Your task to perform on an android device: open device folders in google photos Image 0: 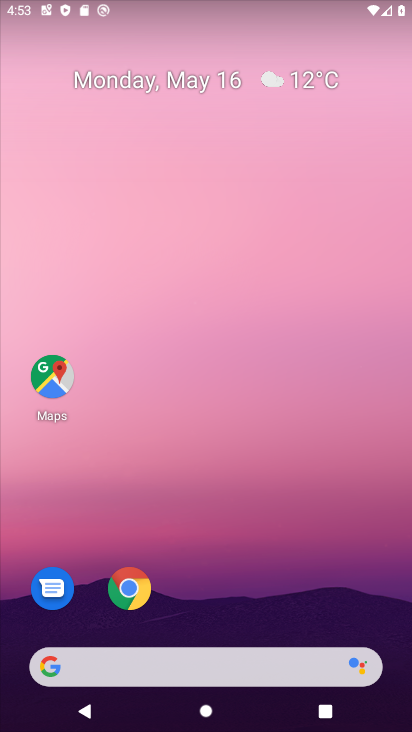
Step 0: drag from (228, 605) to (283, 131)
Your task to perform on an android device: open device folders in google photos Image 1: 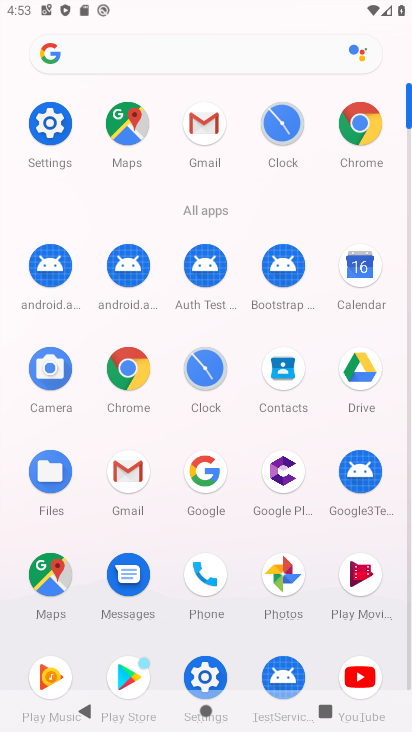
Step 1: click (281, 564)
Your task to perform on an android device: open device folders in google photos Image 2: 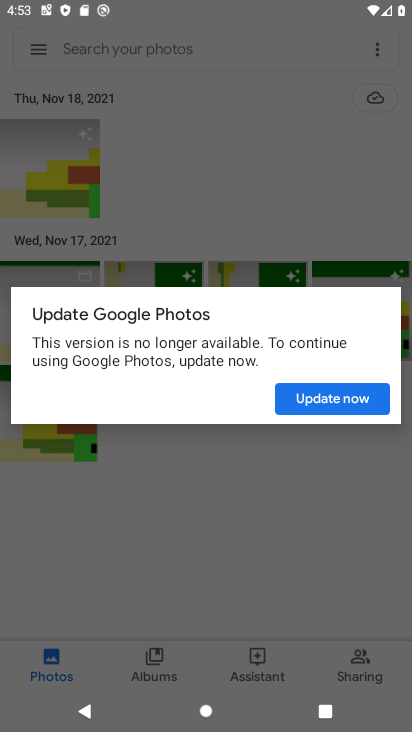
Step 2: click (309, 394)
Your task to perform on an android device: open device folders in google photos Image 3: 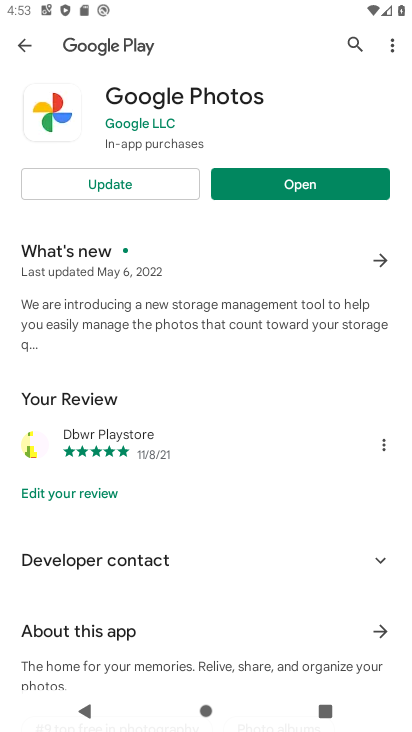
Step 3: click (315, 186)
Your task to perform on an android device: open device folders in google photos Image 4: 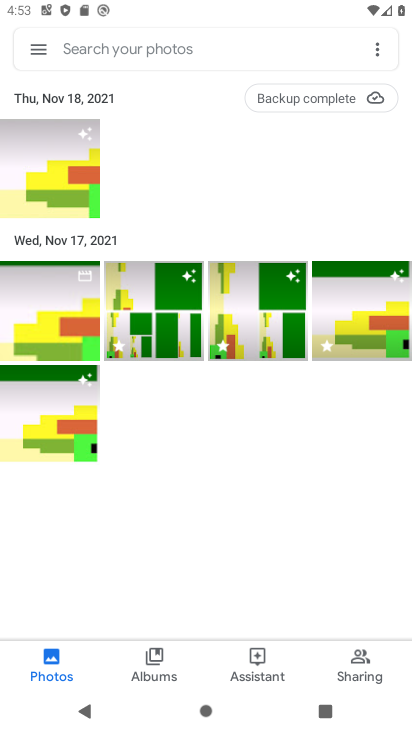
Step 4: click (34, 47)
Your task to perform on an android device: open device folders in google photos Image 5: 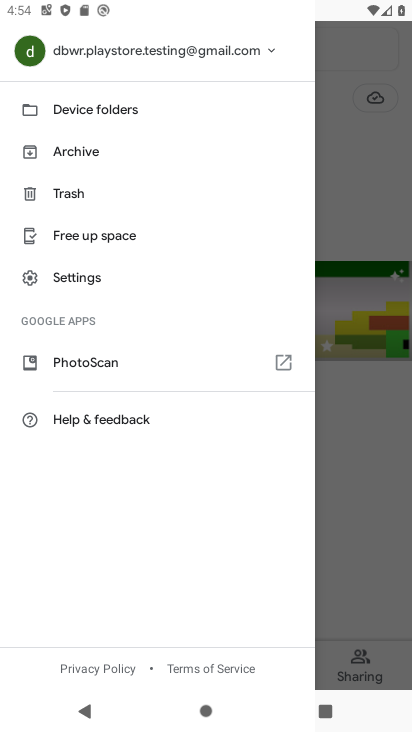
Step 5: click (101, 110)
Your task to perform on an android device: open device folders in google photos Image 6: 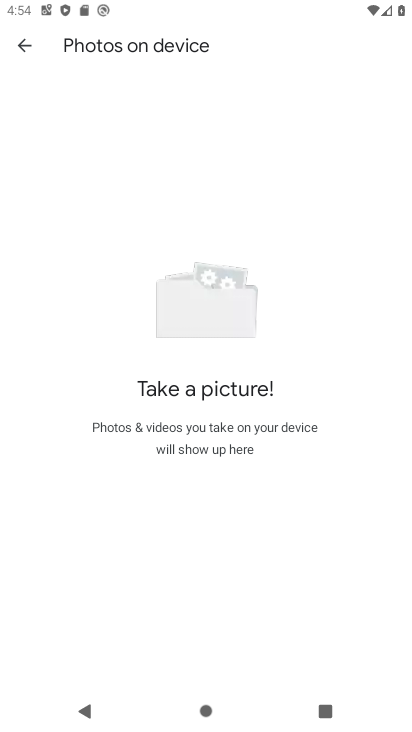
Step 6: task complete